Your task to perform on an android device: set the stopwatch Image 0: 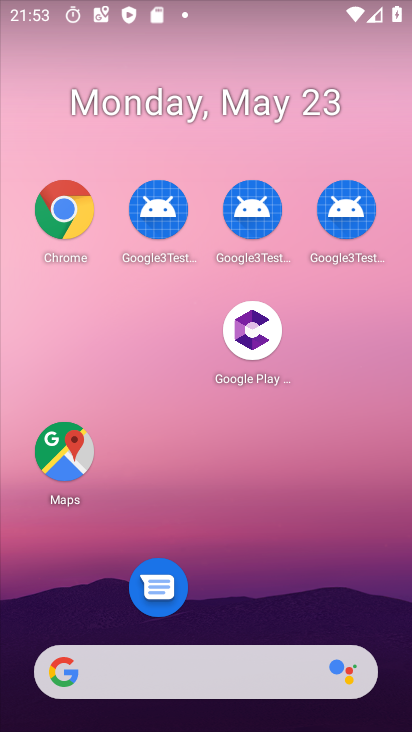
Step 0: drag from (301, 620) to (357, 27)
Your task to perform on an android device: set the stopwatch Image 1: 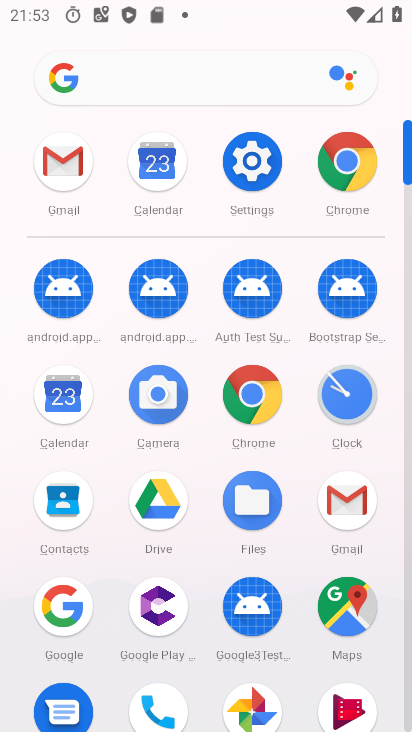
Step 1: click (324, 390)
Your task to perform on an android device: set the stopwatch Image 2: 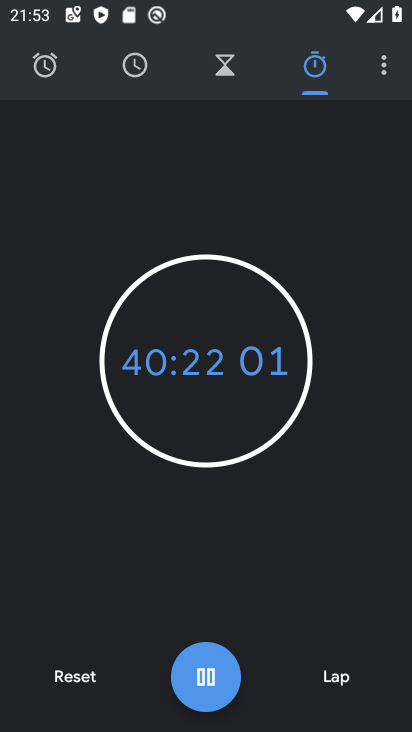
Step 2: click (390, 69)
Your task to perform on an android device: set the stopwatch Image 3: 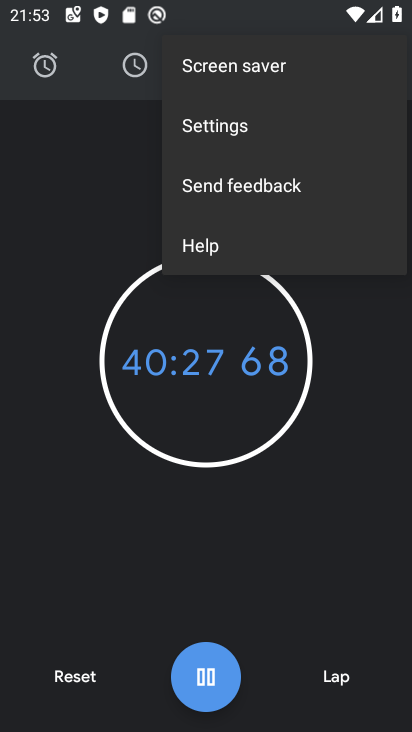
Step 3: click (172, 129)
Your task to perform on an android device: set the stopwatch Image 4: 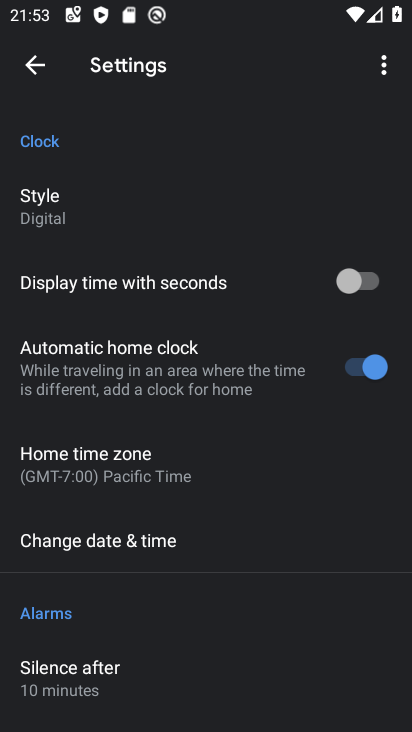
Step 4: click (42, 64)
Your task to perform on an android device: set the stopwatch Image 5: 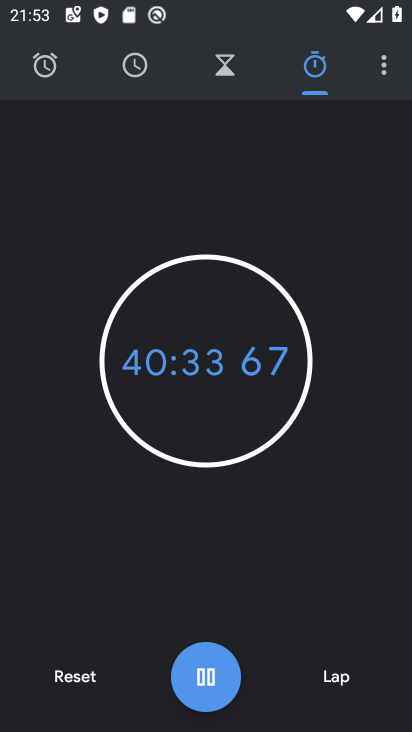
Step 5: click (68, 674)
Your task to perform on an android device: set the stopwatch Image 6: 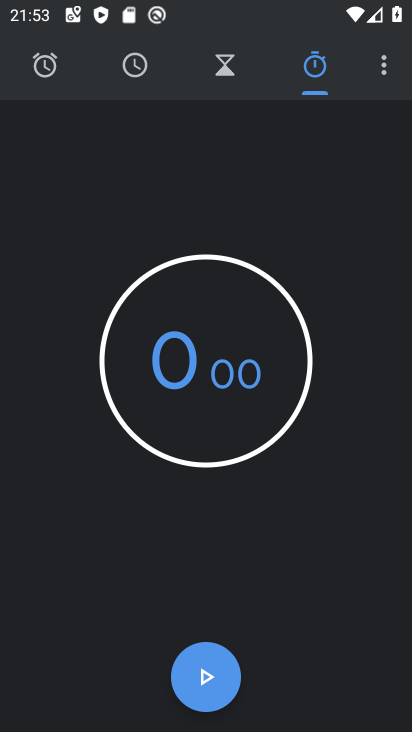
Step 6: click (219, 675)
Your task to perform on an android device: set the stopwatch Image 7: 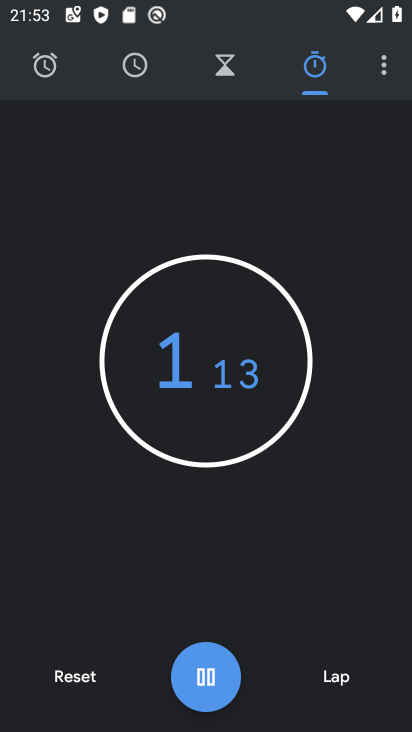
Step 7: task complete